Your task to perform on an android device: Open ESPN.com Image 0: 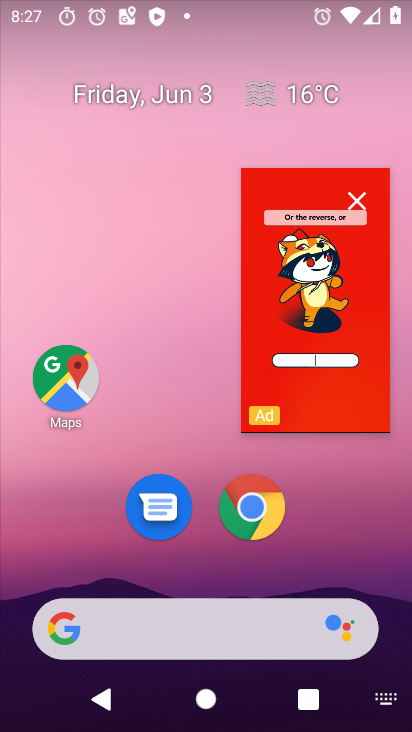
Step 0: click (352, 203)
Your task to perform on an android device: Open ESPN.com Image 1: 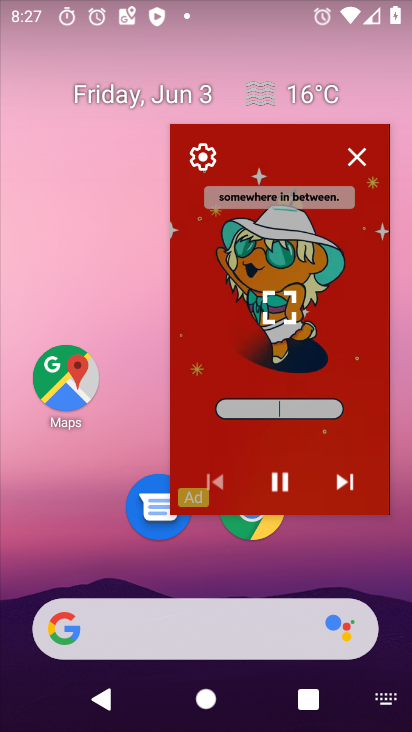
Step 1: click (254, 501)
Your task to perform on an android device: Open ESPN.com Image 2: 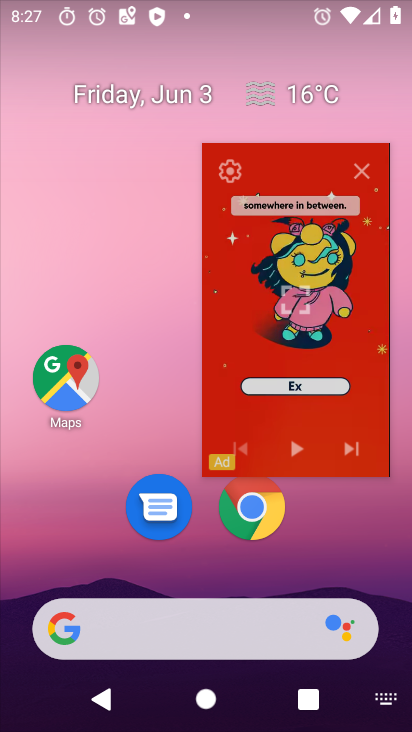
Step 2: click (359, 162)
Your task to perform on an android device: Open ESPN.com Image 3: 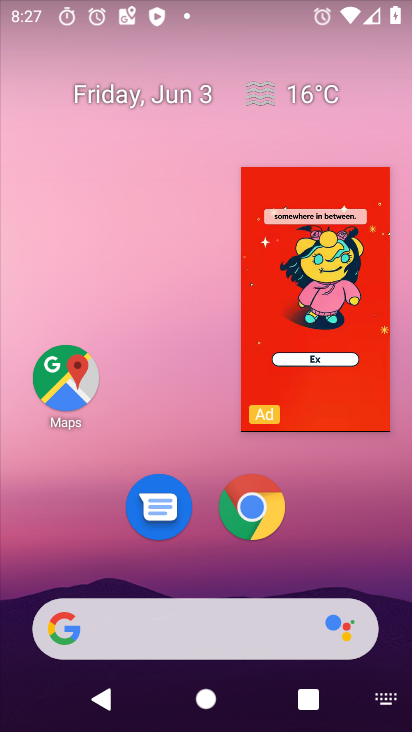
Step 3: click (239, 498)
Your task to perform on an android device: Open ESPN.com Image 4: 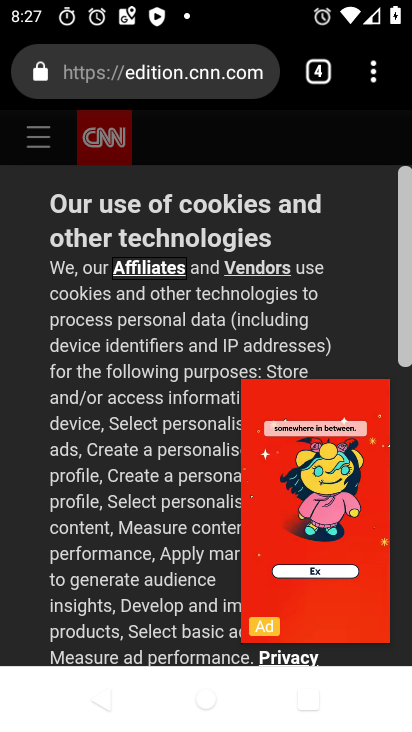
Step 4: click (317, 79)
Your task to perform on an android device: Open ESPN.com Image 5: 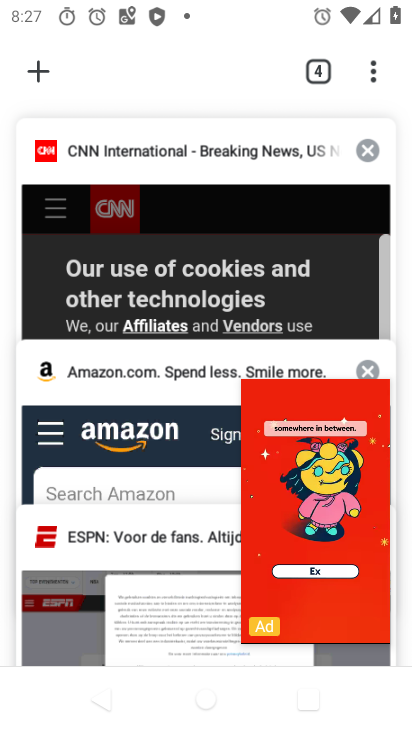
Step 5: click (92, 544)
Your task to perform on an android device: Open ESPN.com Image 6: 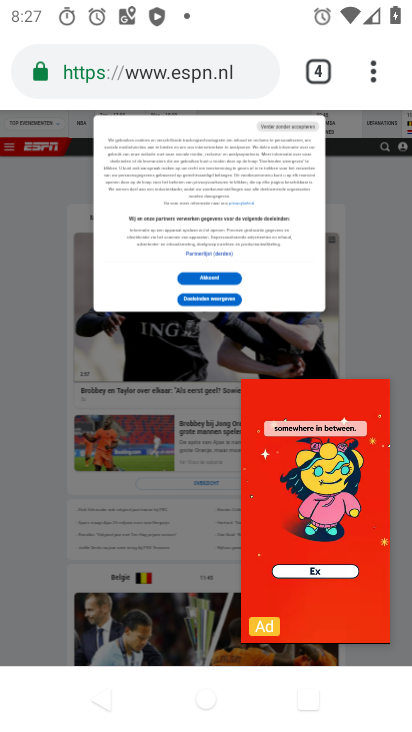
Step 6: task complete